Your task to perform on an android device: Search for logitech g pro on bestbuy.com, select the first entry, and add it to the cart. Image 0: 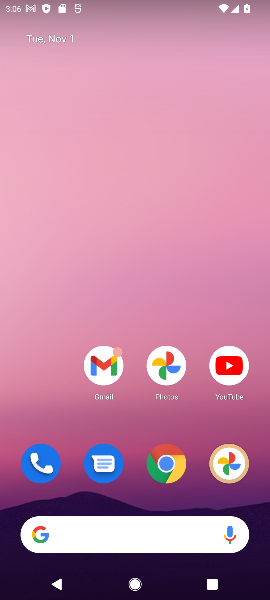
Step 0: drag from (134, 498) to (102, 51)
Your task to perform on an android device: Search for logitech g pro on bestbuy.com, select the first entry, and add it to the cart. Image 1: 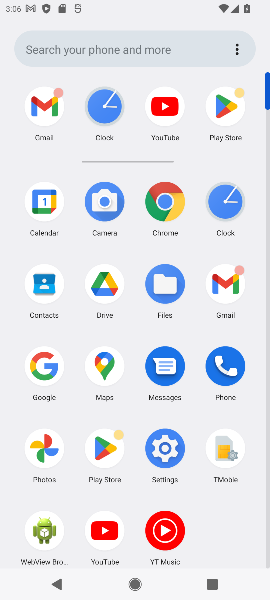
Step 1: click (164, 202)
Your task to perform on an android device: Search for logitech g pro on bestbuy.com, select the first entry, and add it to the cart. Image 2: 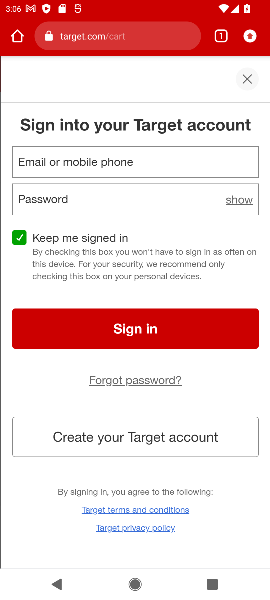
Step 2: click (112, 38)
Your task to perform on an android device: Search for logitech g pro on bestbuy.com, select the first entry, and add it to the cart. Image 3: 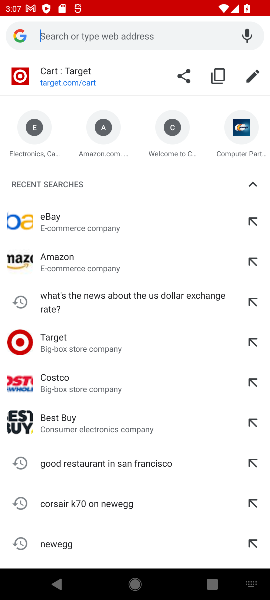
Step 3: type "bestbuy.com"
Your task to perform on an android device: Search for logitech g pro on bestbuy.com, select the first entry, and add it to the cart. Image 4: 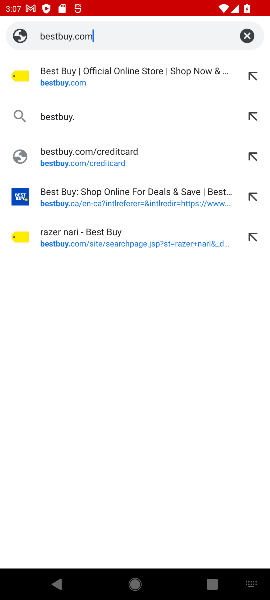
Step 4: press enter
Your task to perform on an android device: Search for logitech g pro on bestbuy.com, select the first entry, and add it to the cart. Image 5: 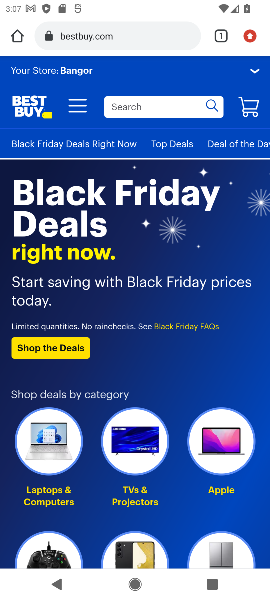
Step 5: click (148, 100)
Your task to perform on an android device: Search for logitech g pro on bestbuy.com, select the first entry, and add it to the cart. Image 6: 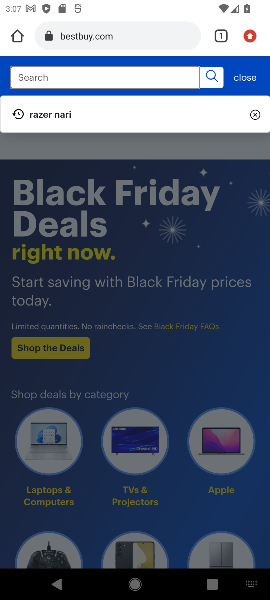
Step 6: type "logitech g pro"
Your task to perform on an android device: Search for logitech g pro on bestbuy.com, select the first entry, and add it to the cart. Image 7: 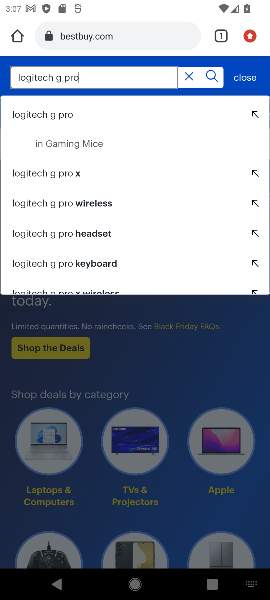
Step 7: press enter
Your task to perform on an android device: Search for logitech g pro on bestbuy.com, select the first entry, and add it to the cart. Image 8: 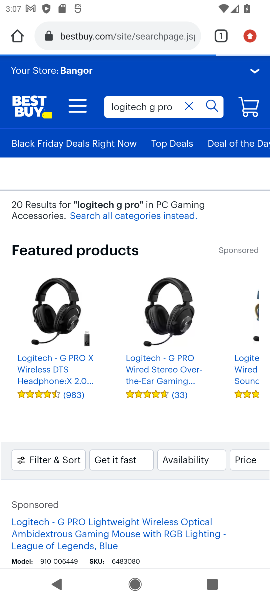
Step 8: drag from (129, 496) to (153, 170)
Your task to perform on an android device: Search for logitech g pro on bestbuy.com, select the first entry, and add it to the cart. Image 9: 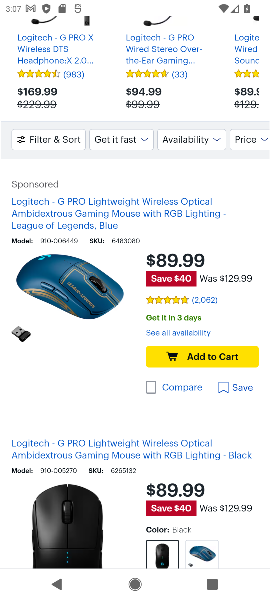
Step 9: drag from (122, 473) to (147, 324)
Your task to perform on an android device: Search for logitech g pro on bestbuy.com, select the first entry, and add it to the cart. Image 10: 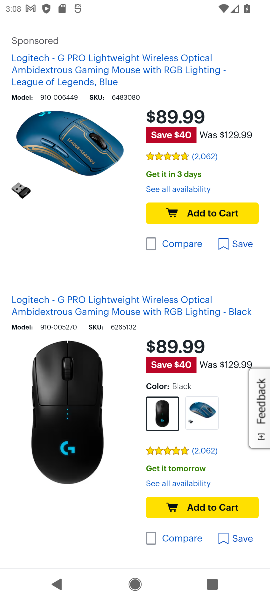
Step 10: click (187, 508)
Your task to perform on an android device: Search for logitech g pro on bestbuy.com, select the first entry, and add it to the cart. Image 11: 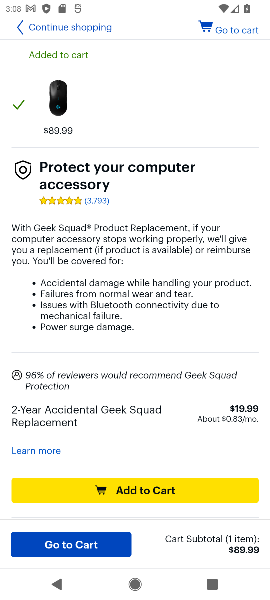
Step 11: task complete